Your task to perform on an android device: delete browsing data in the chrome app Image 0: 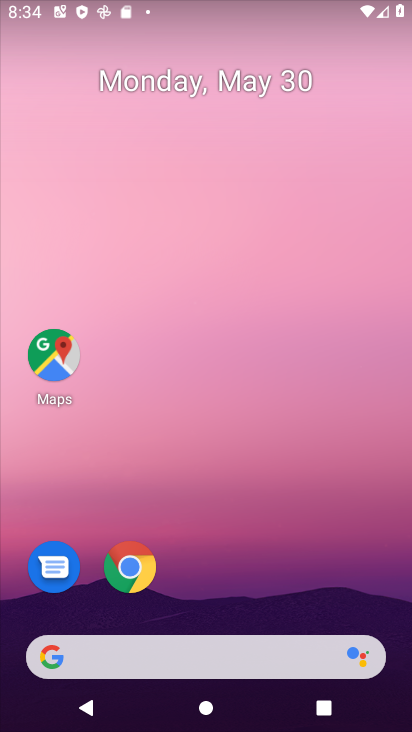
Step 0: click (146, 581)
Your task to perform on an android device: delete browsing data in the chrome app Image 1: 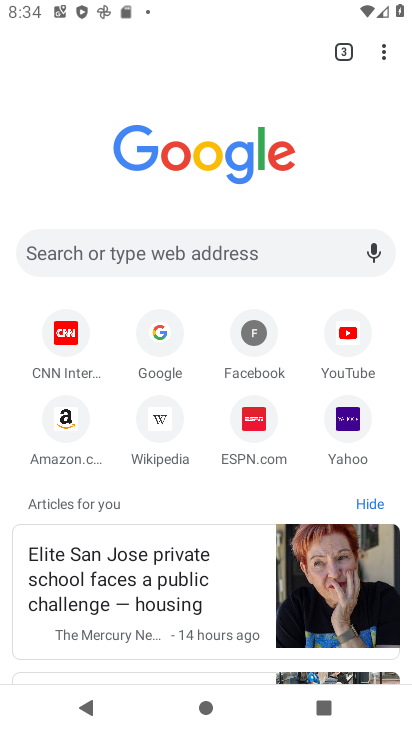
Step 1: click (389, 49)
Your task to perform on an android device: delete browsing data in the chrome app Image 2: 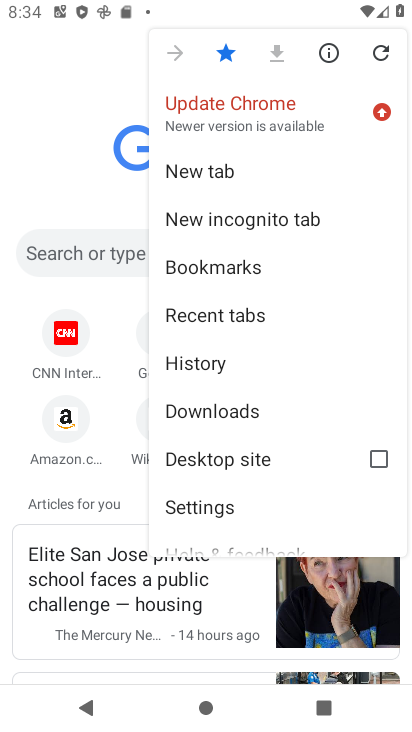
Step 2: click (212, 499)
Your task to perform on an android device: delete browsing data in the chrome app Image 3: 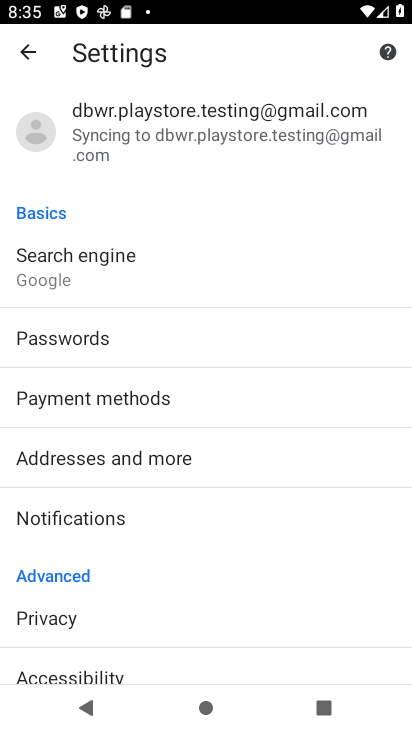
Step 3: task complete